Your task to perform on an android device: Open settings on Google Maps Image 0: 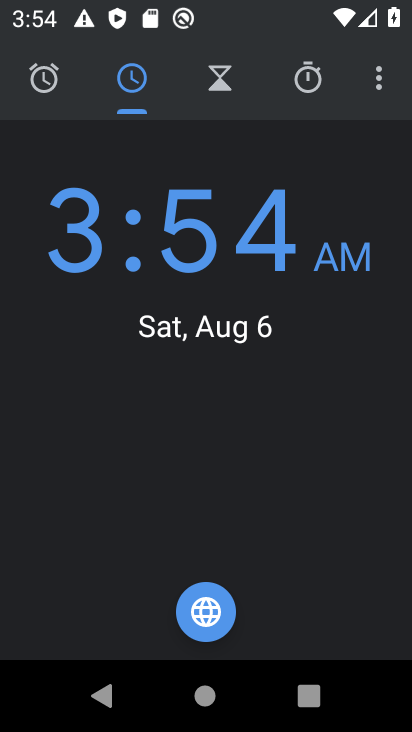
Step 0: press home button
Your task to perform on an android device: Open settings on Google Maps Image 1: 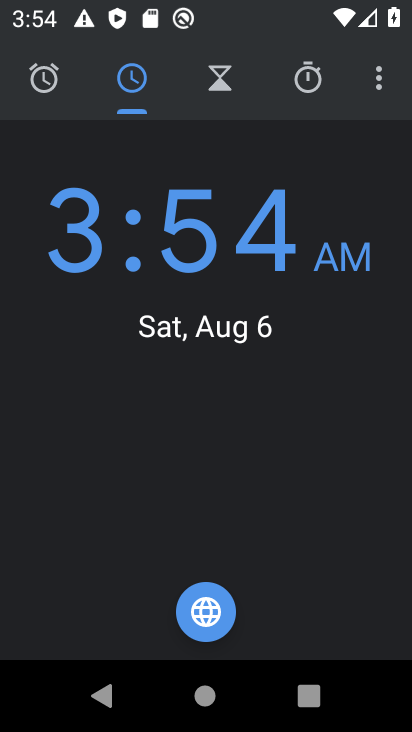
Step 1: press home button
Your task to perform on an android device: Open settings on Google Maps Image 2: 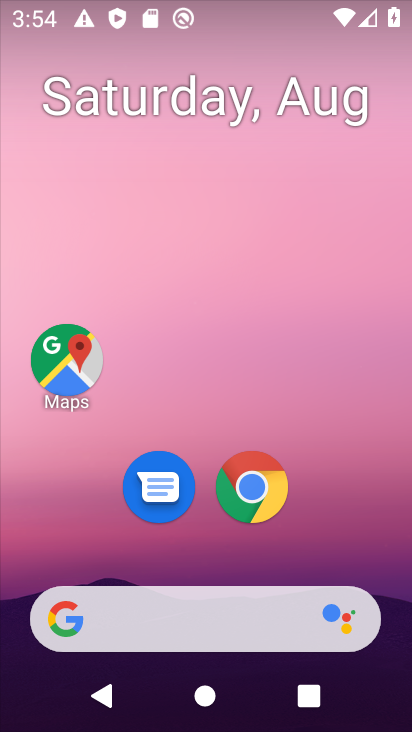
Step 2: click (49, 359)
Your task to perform on an android device: Open settings on Google Maps Image 3: 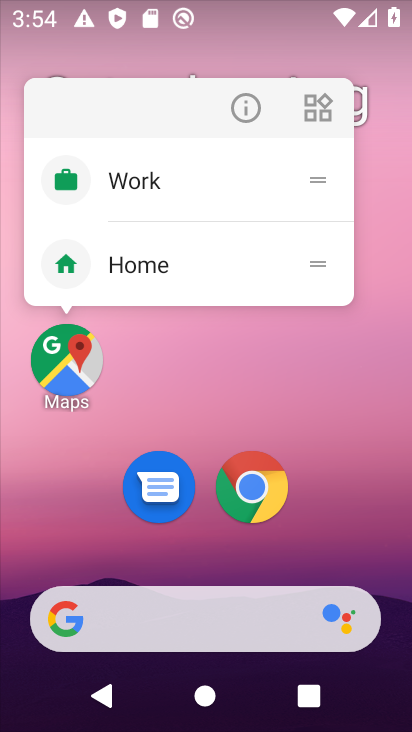
Step 3: click (49, 359)
Your task to perform on an android device: Open settings on Google Maps Image 4: 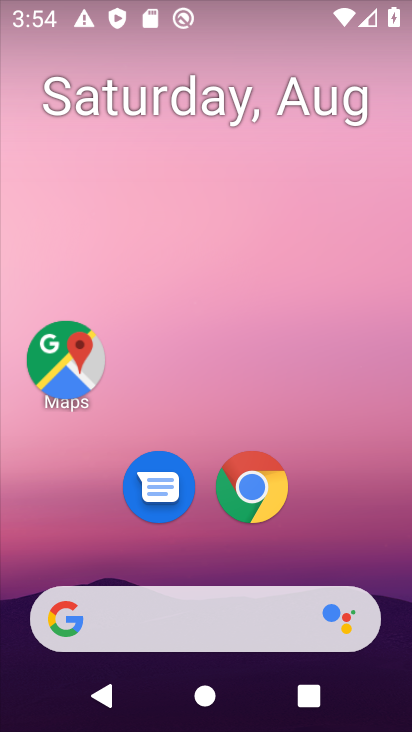
Step 4: click (49, 359)
Your task to perform on an android device: Open settings on Google Maps Image 5: 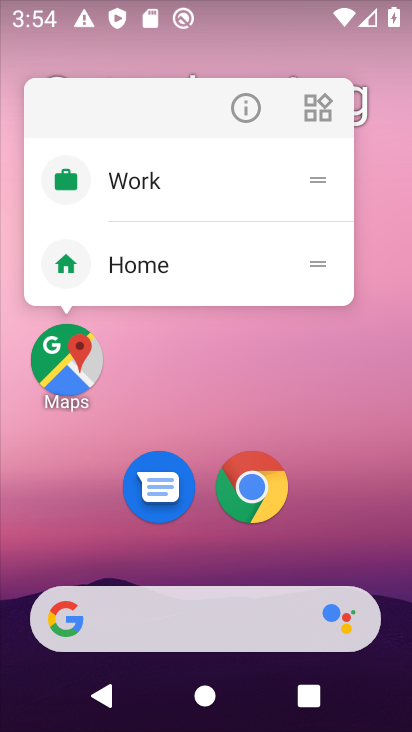
Step 5: click (55, 386)
Your task to perform on an android device: Open settings on Google Maps Image 6: 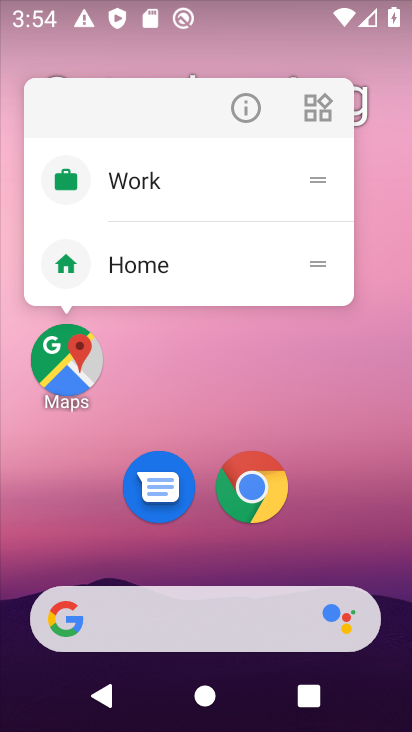
Step 6: click (76, 376)
Your task to perform on an android device: Open settings on Google Maps Image 7: 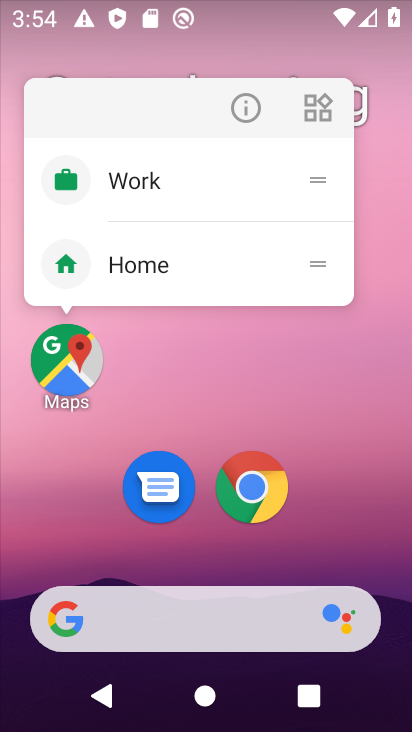
Step 7: click (84, 375)
Your task to perform on an android device: Open settings on Google Maps Image 8: 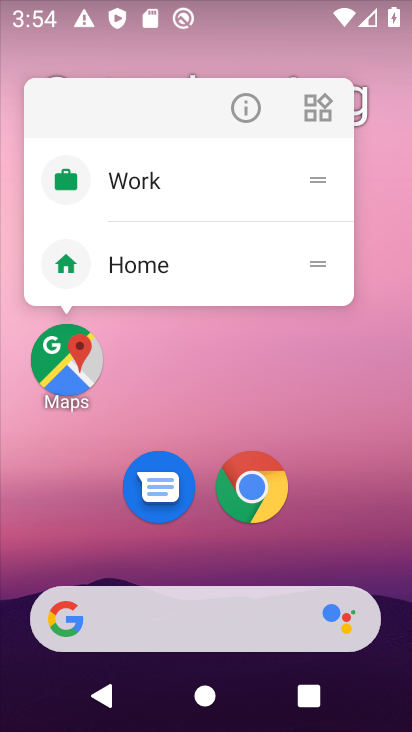
Step 8: click (84, 375)
Your task to perform on an android device: Open settings on Google Maps Image 9: 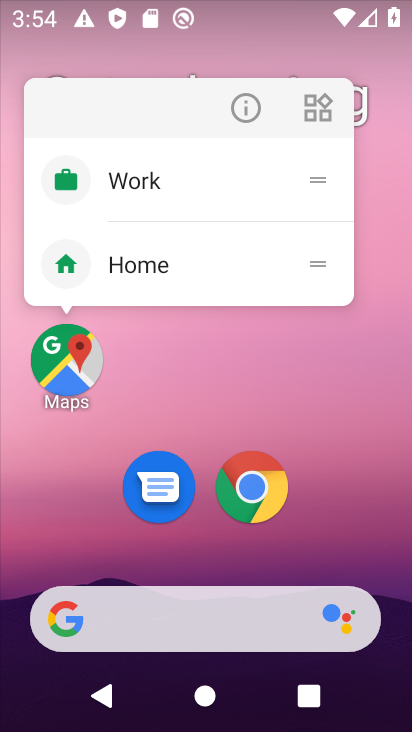
Step 9: click (84, 378)
Your task to perform on an android device: Open settings on Google Maps Image 10: 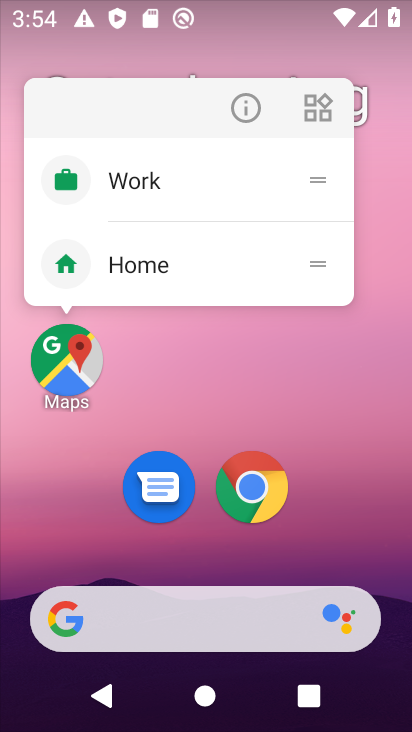
Step 10: click (82, 362)
Your task to perform on an android device: Open settings on Google Maps Image 11: 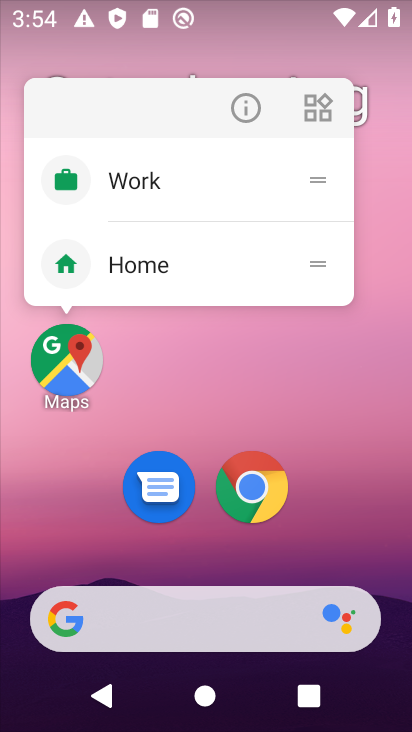
Step 11: click (82, 362)
Your task to perform on an android device: Open settings on Google Maps Image 12: 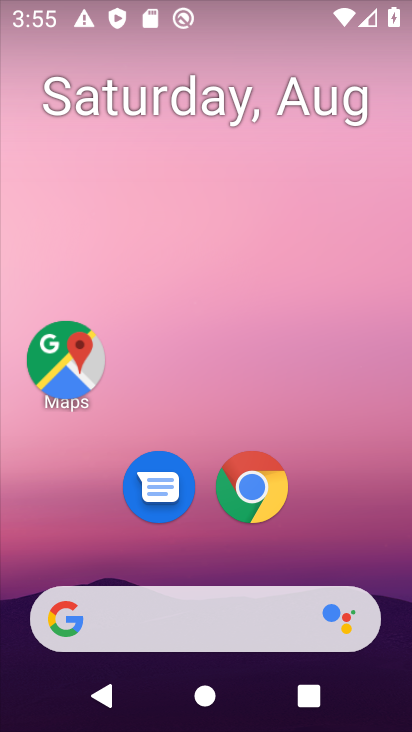
Step 12: click (82, 362)
Your task to perform on an android device: Open settings on Google Maps Image 13: 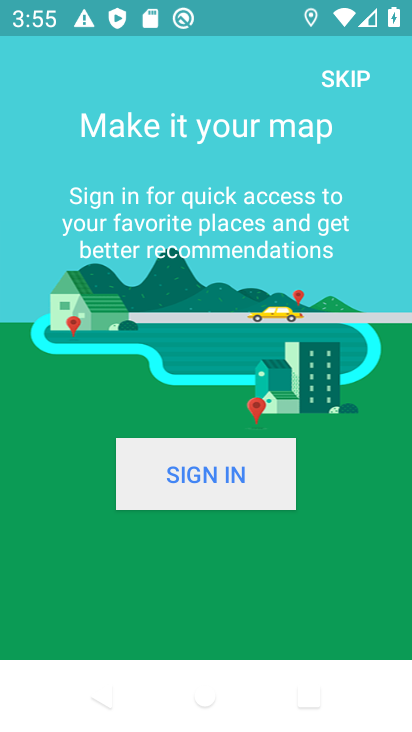
Step 13: click (352, 78)
Your task to perform on an android device: Open settings on Google Maps Image 14: 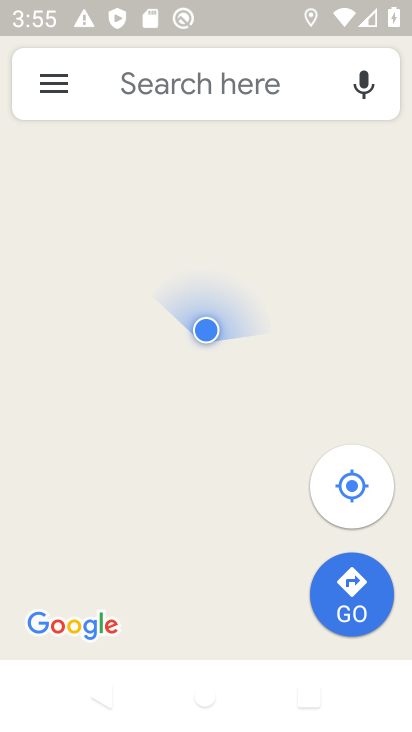
Step 14: click (47, 79)
Your task to perform on an android device: Open settings on Google Maps Image 15: 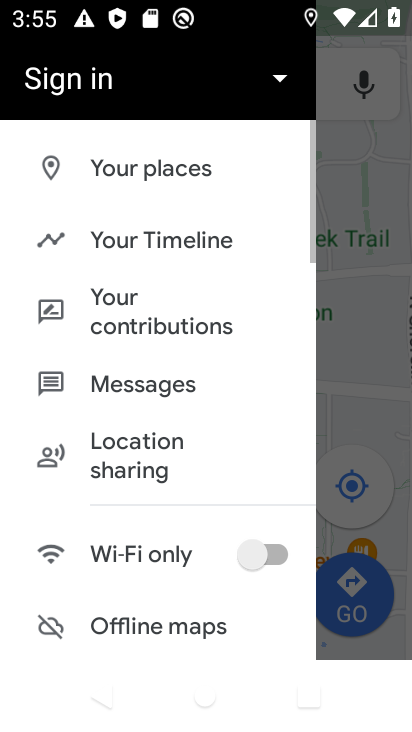
Step 15: drag from (132, 601) to (135, 18)
Your task to perform on an android device: Open settings on Google Maps Image 16: 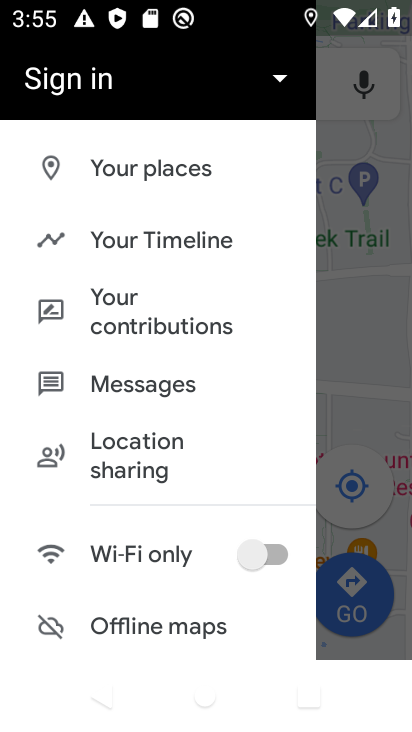
Step 16: drag from (135, 570) to (185, 5)
Your task to perform on an android device: Open settings on Google Maps Image 17: 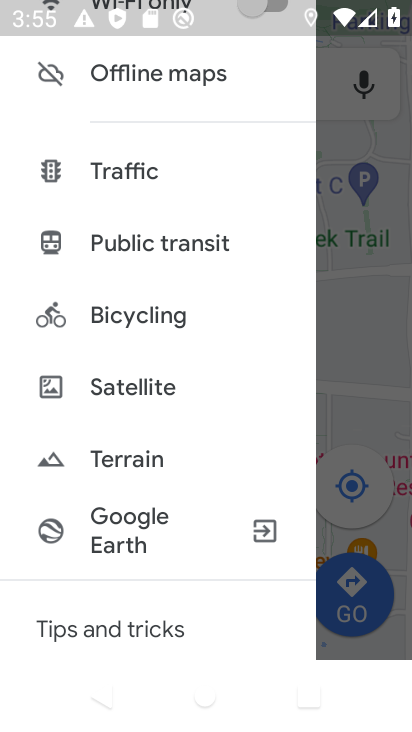
Step 17: drag from (120, 586) to (220, 83)
Your task to perform on an android device: Open settings on Google Maps Image 18: 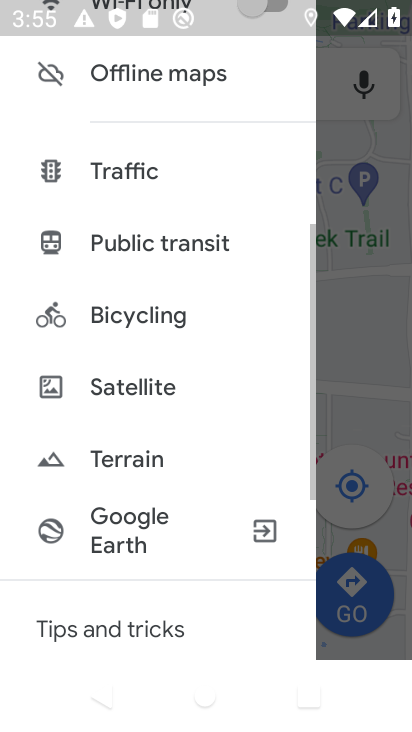
Step 18: drag from (137, 568) to (130, 3)
Your task to perform on an android device: Open settings on Google Maps Image 19: 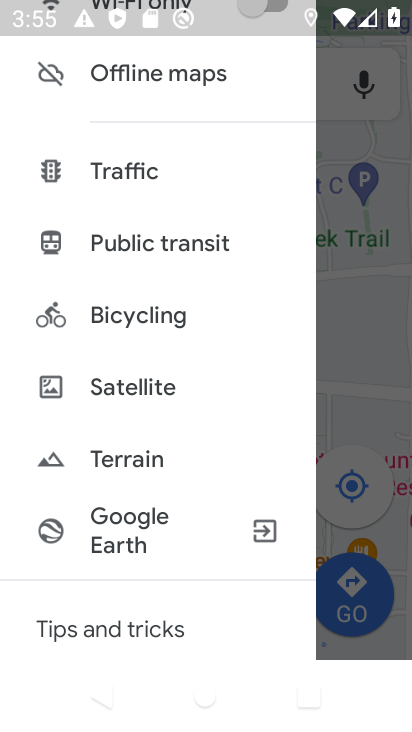
Step 19: drag from (144, 608) to (164, 32)
Your task to perform on an android device: Open settings on Google Maps Image 20: 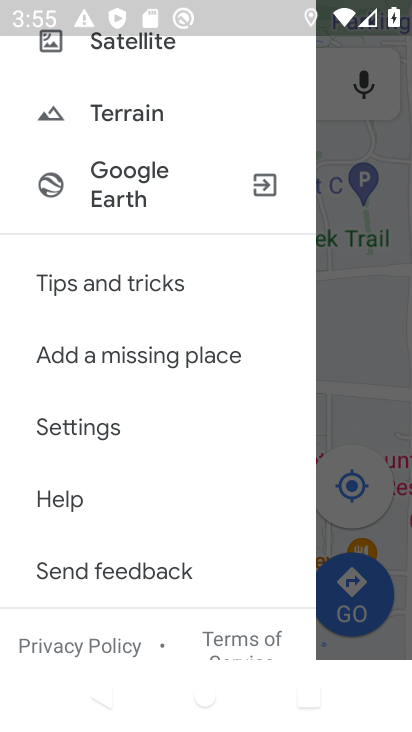
Step 20: click (117, 427)
Your task to perform on an android device: Open settings on Google Maps Image 21: 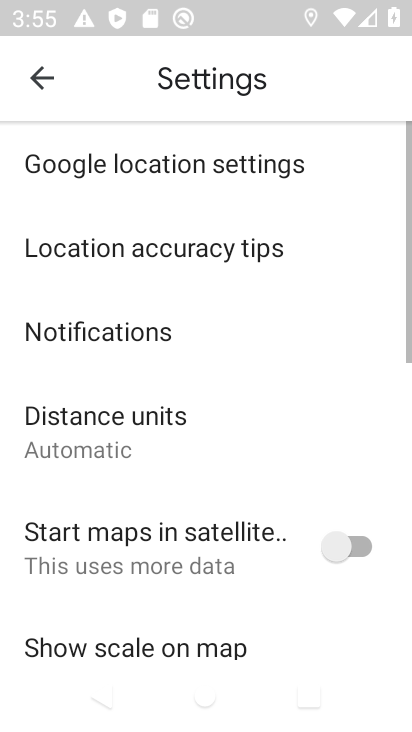
Step 21: task complete